Your task to perform on an android device: make emails show in primary in the gmail app Image 0: 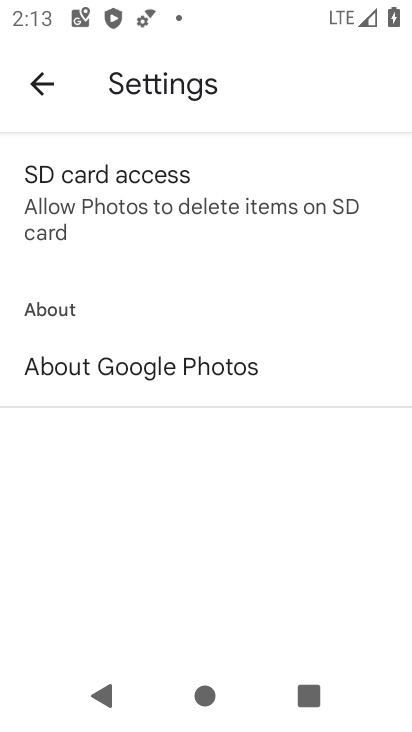
Step 0: click (20, 85)
Your task to perform on an android device: make emails show in primary in the gmail app Image 1: 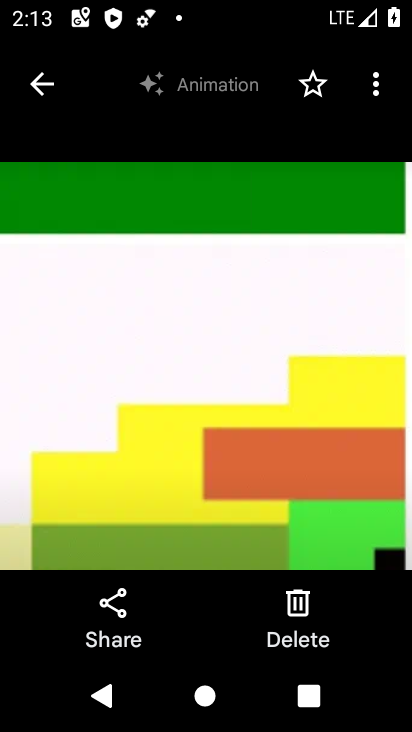
Step 1: press home button
Your task to perform on an android device: make emails show in primary in the gmail app Image 2: 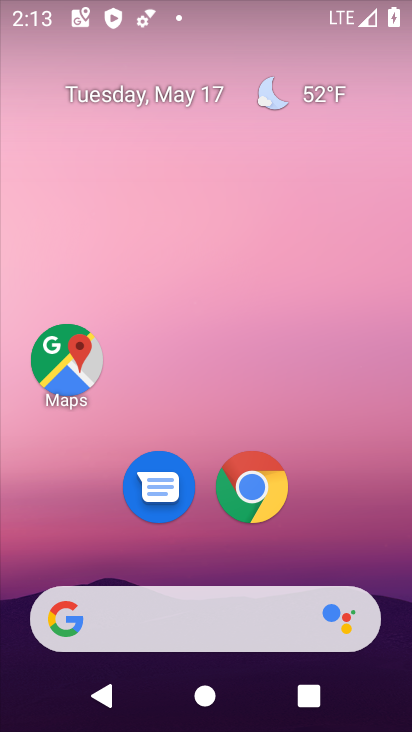
Step 2: drag from (398, 660) to (301, 316)
Your task to perform on an android device: make emails show in primary in the gmail app Image 3: 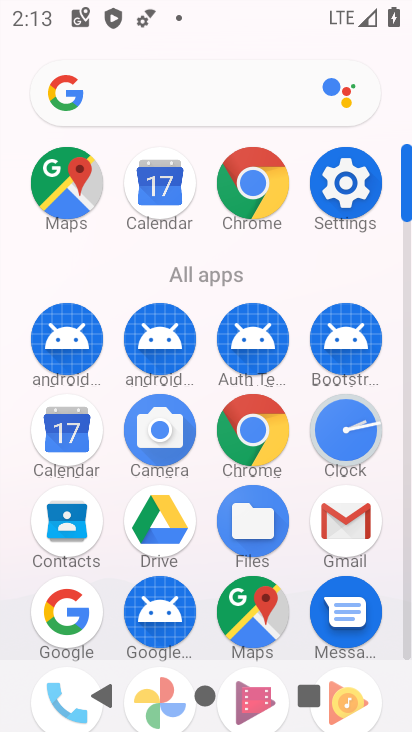
Step 3: click (357, 527)
Your task to perform on an android device: make emails show in primary in the gmail app Image 4: 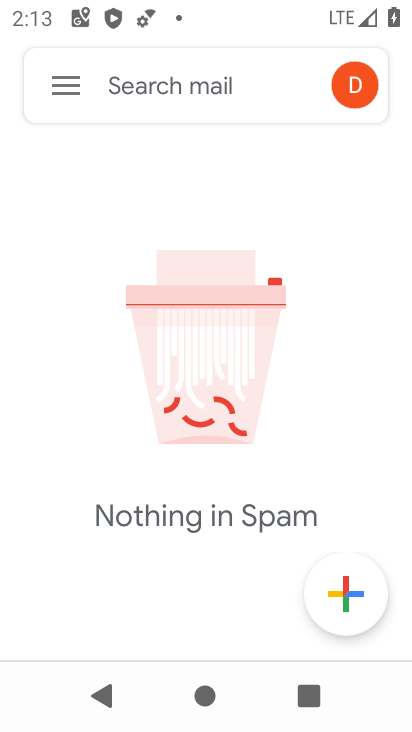
Step 4: click (65, 88)
Your task to perform on an android device: make emails show in primary in the gmail app Image 5: 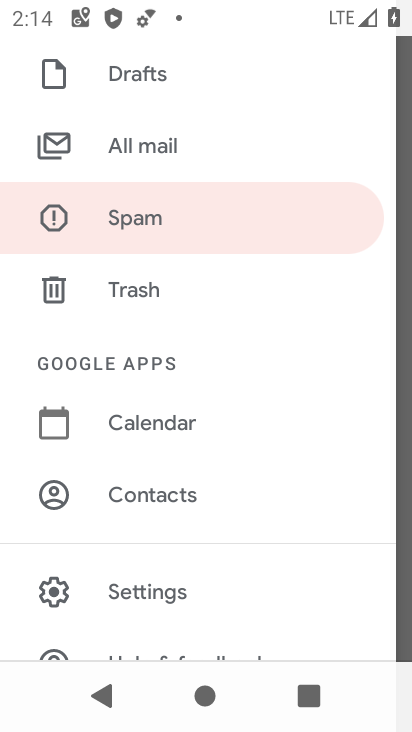
Step 5: click (154, 590)
Your task to perform on an android device: make emails show in primary in the gmail app Image 6: 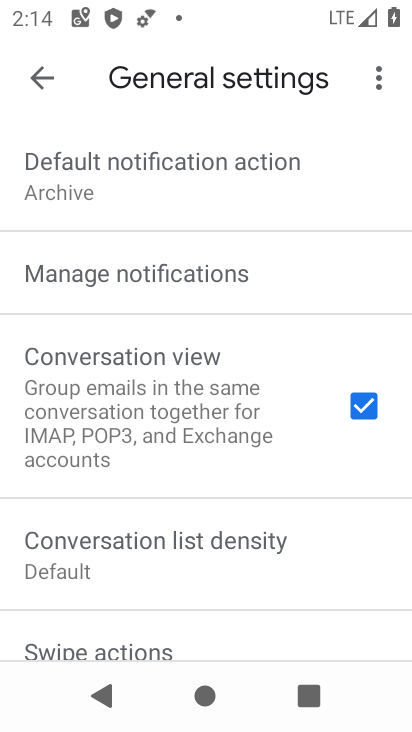
Step 6: drag from (251, 602) to (233, 365)
Your task to perform on an android device: make emails show in primary in the gmail app Image 7: 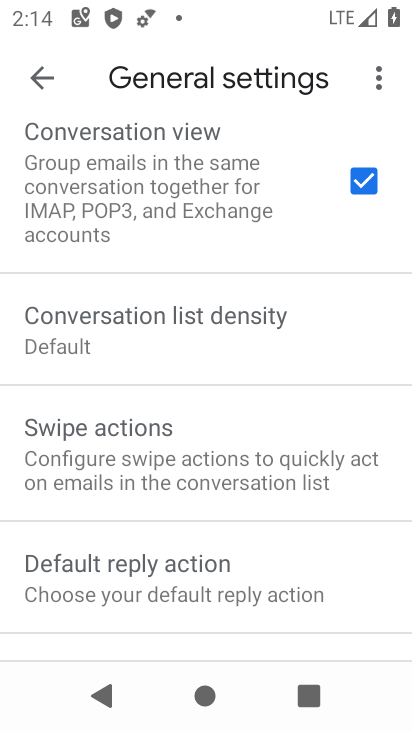
Step 7: drag from (182, 580) to (156, 369)
Your task to perform on an android device: make emails show in primary in the gmail app Image 8: 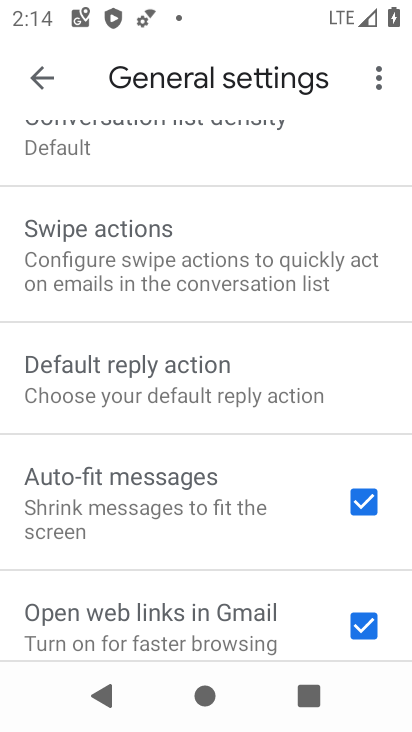
Step 8: drag from (247, 519) to (257, 246)
Your task to perform on an android device: make emails show in primary in the gmail app Image 9: 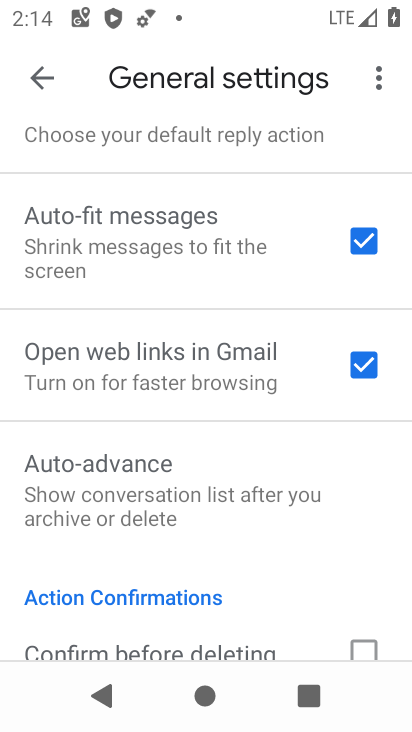
Step 9: drag from (248, 613) to (245, 326)
Your task to perform on an android device: make emails show in primary in the gmail app Image 10: 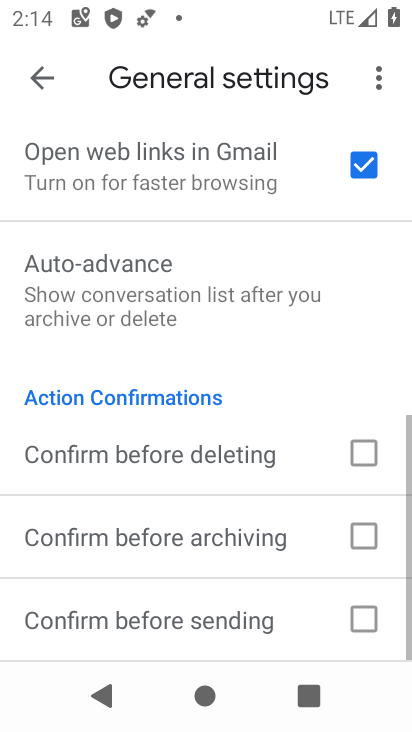
Step 10: drag from (220, 558) to (186, 384)
Your task to perform on an android device: make emails show in primary in the gmail app Image 11: 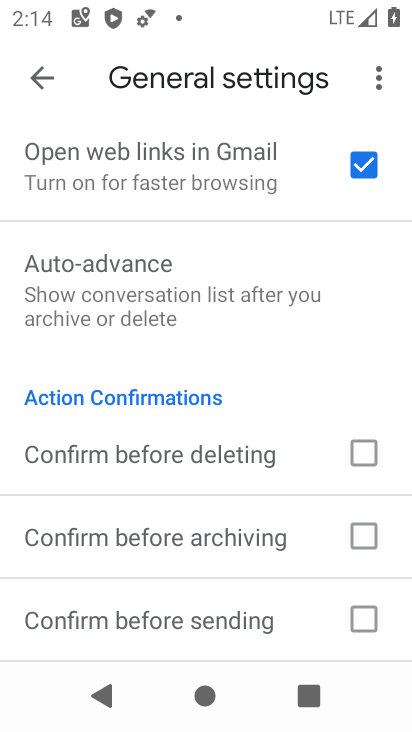
Step 11: drag from (207, 234) to (232, 550)
Your task to perform on an android device: make emails show in primary in the gmail app Image 12: 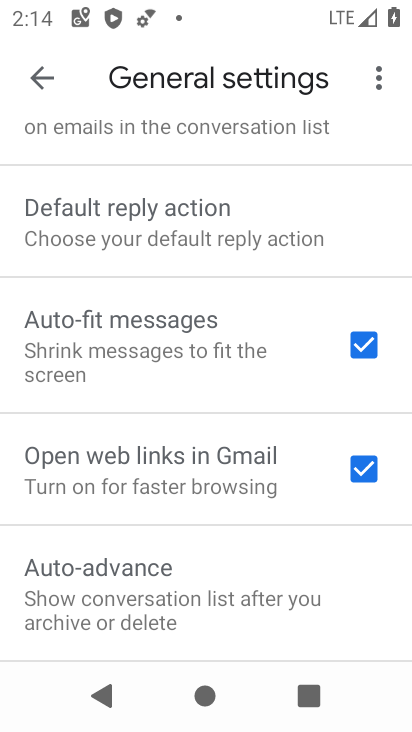
Step 12: drag from (153, 210) to (200, 496)
Your task to perform on an android device: make emails show in primary in the gmail app Image 13: 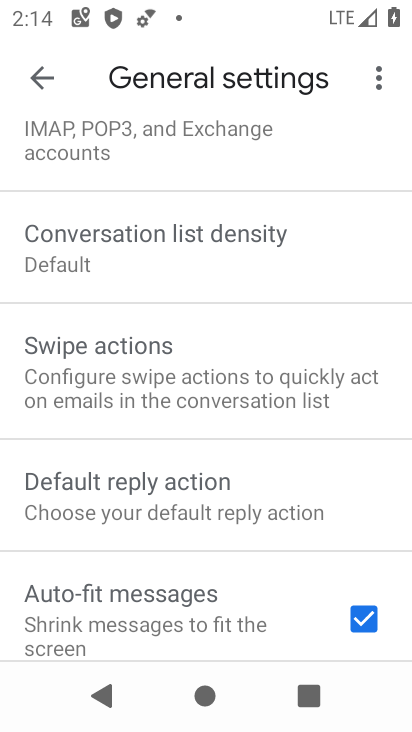
Step 13: drag from (137, 224) to (216, 524)
Your task to perform on an android device: make emails show in primary in the gmail app Image 14: 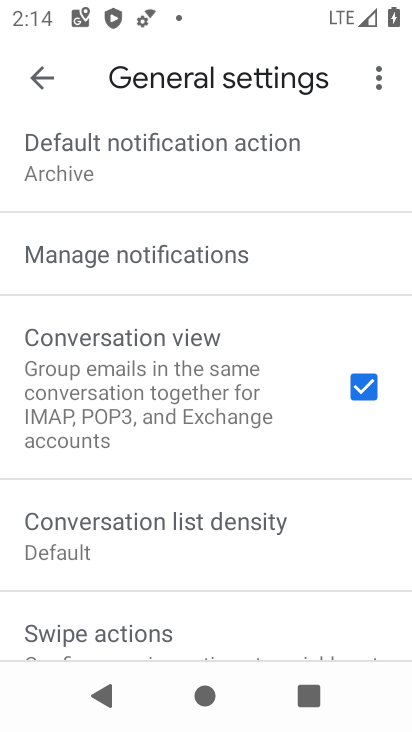
Step 14: click (31, 79)
Your task to perform on an android device: make emails show in primary in the gmail app Image 15: 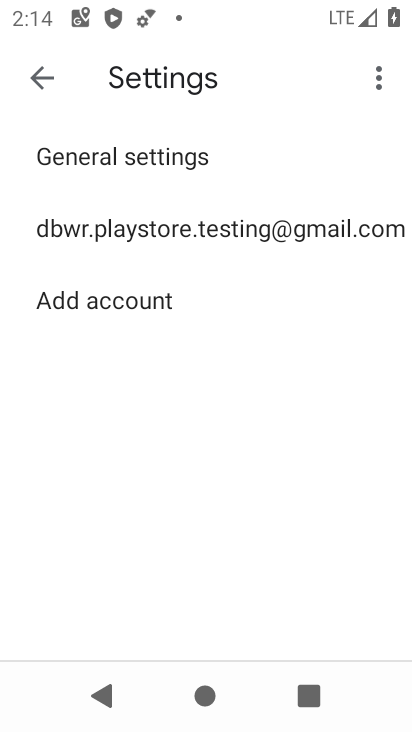
Step 15: click (109, 215)
Your task to perform on an android device: make emails show in primary in the gmail app Image 16: 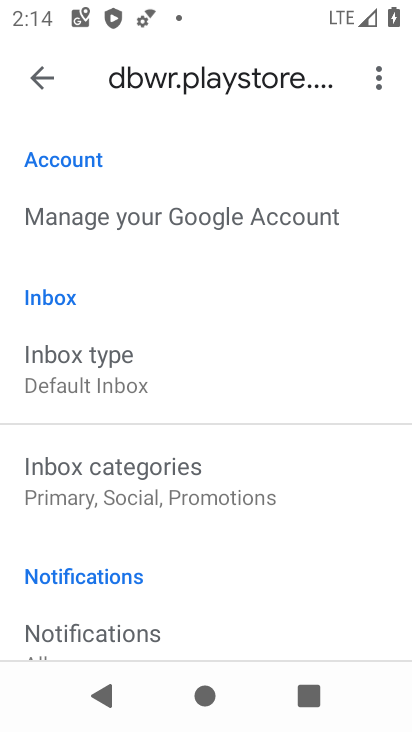
Step 16: click (83, 371)
Your task to perform on an android device: make emails show in primary in the gmail app Image 17: 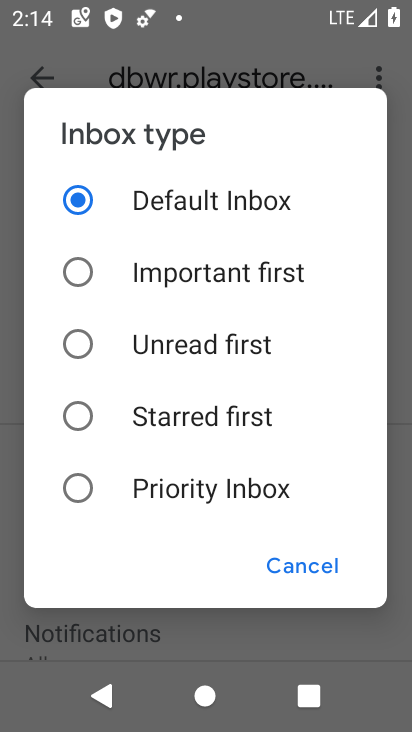
Step 17: click (274, 573)
Your task to perform on an android device: make emails show in primary in the gmail app Image 18: 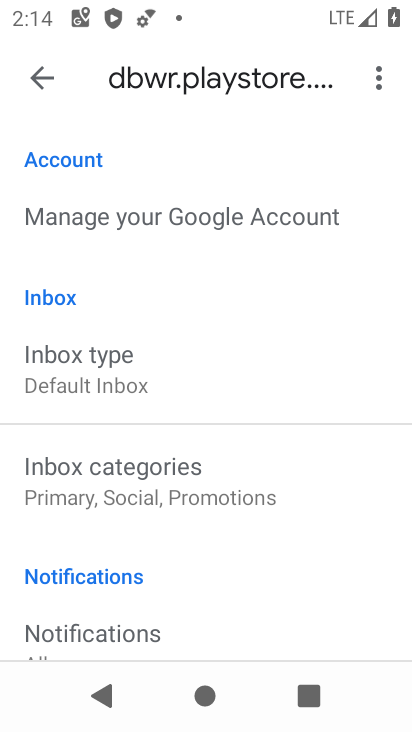
Step 18: click (80, 469)
Your task to perform on an android device: make emails show in primary in the gmail app Image 19: 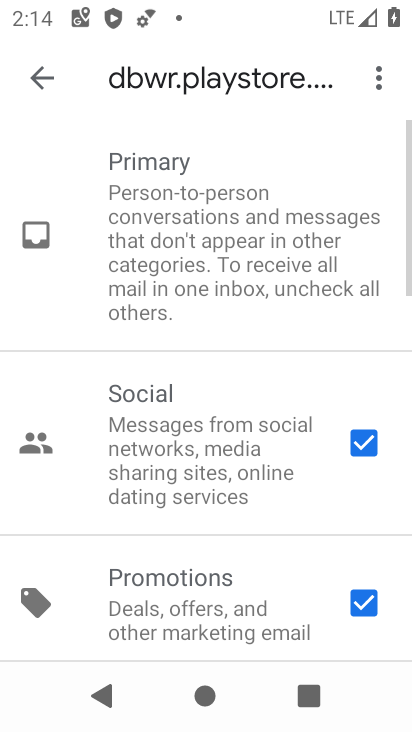
Step 19: click (359, 428)
Your task to perform on an android device: make emails show in primary in the gmail app Image 20: 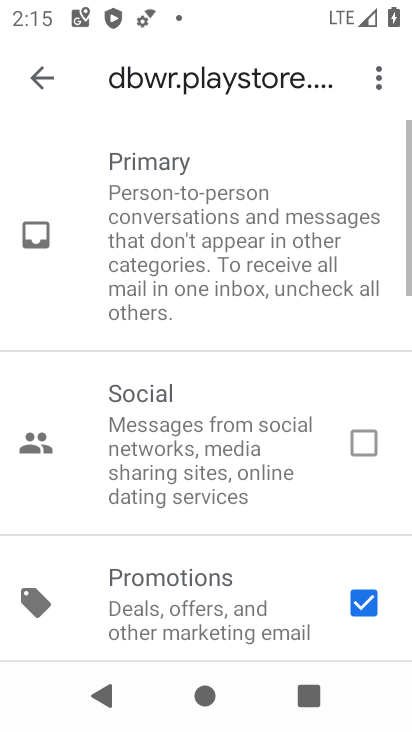
Step 20: click (361, 593)
Your task to perform on an android device: make emails show in primary in the gmail app Image 21: 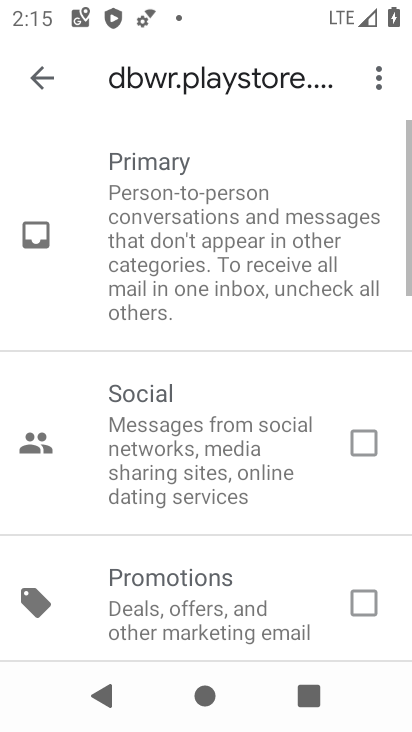
Step 21: task complete